Your task to perform on an android device: Open sound settings Image 0: 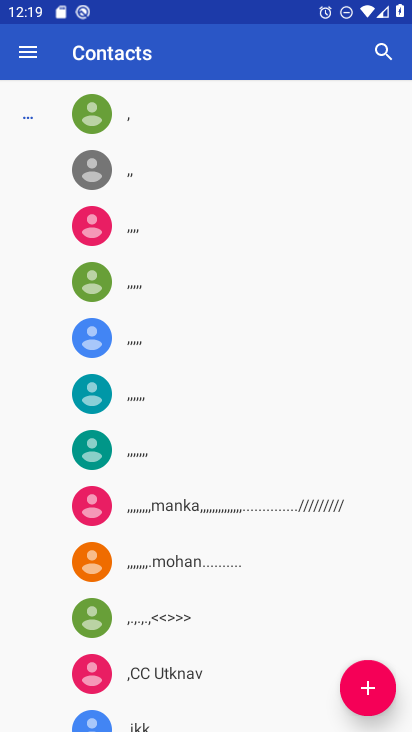
Step 0: press home button
Your task to perform on an android device: Open sound settings Image 1: 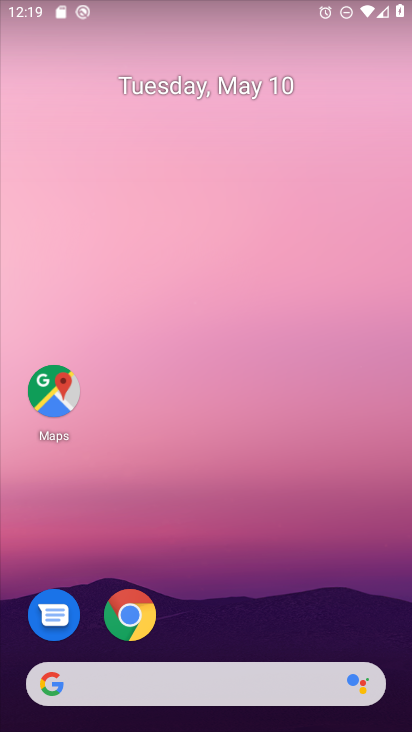
Step 1: drag from (220, 704) to (263, 157)
Your task to perform on an android device: Open sound settings Image 2: 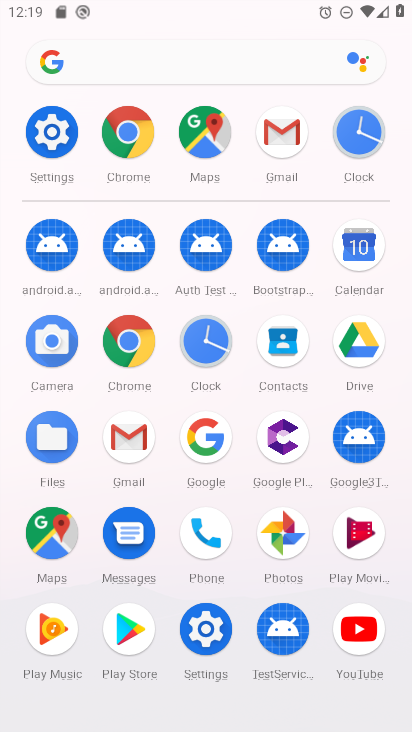
Step 2: click (202, 620)
Your task to perform on an android device: Open sound settings Image 3: 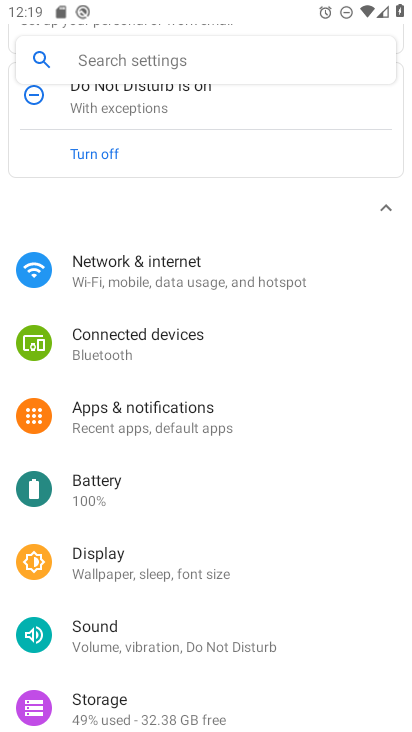
Step 3: click (130, 633)
Your task to perform on an android device: Open sound settings Image 4: 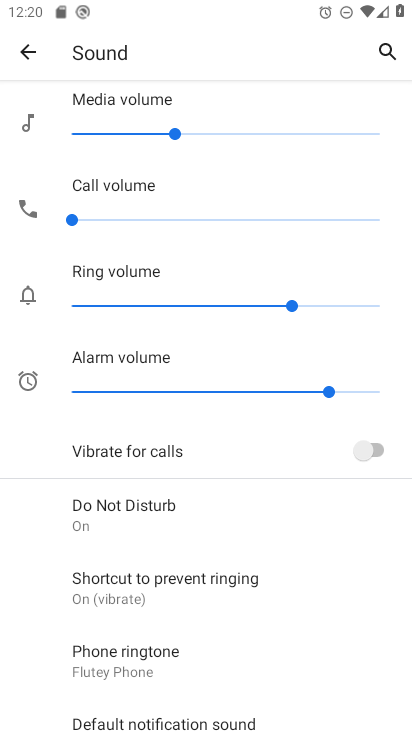
Step 4: task complete